Your task to perform on an android device: Play the last video I watched on Youtube Image 0: 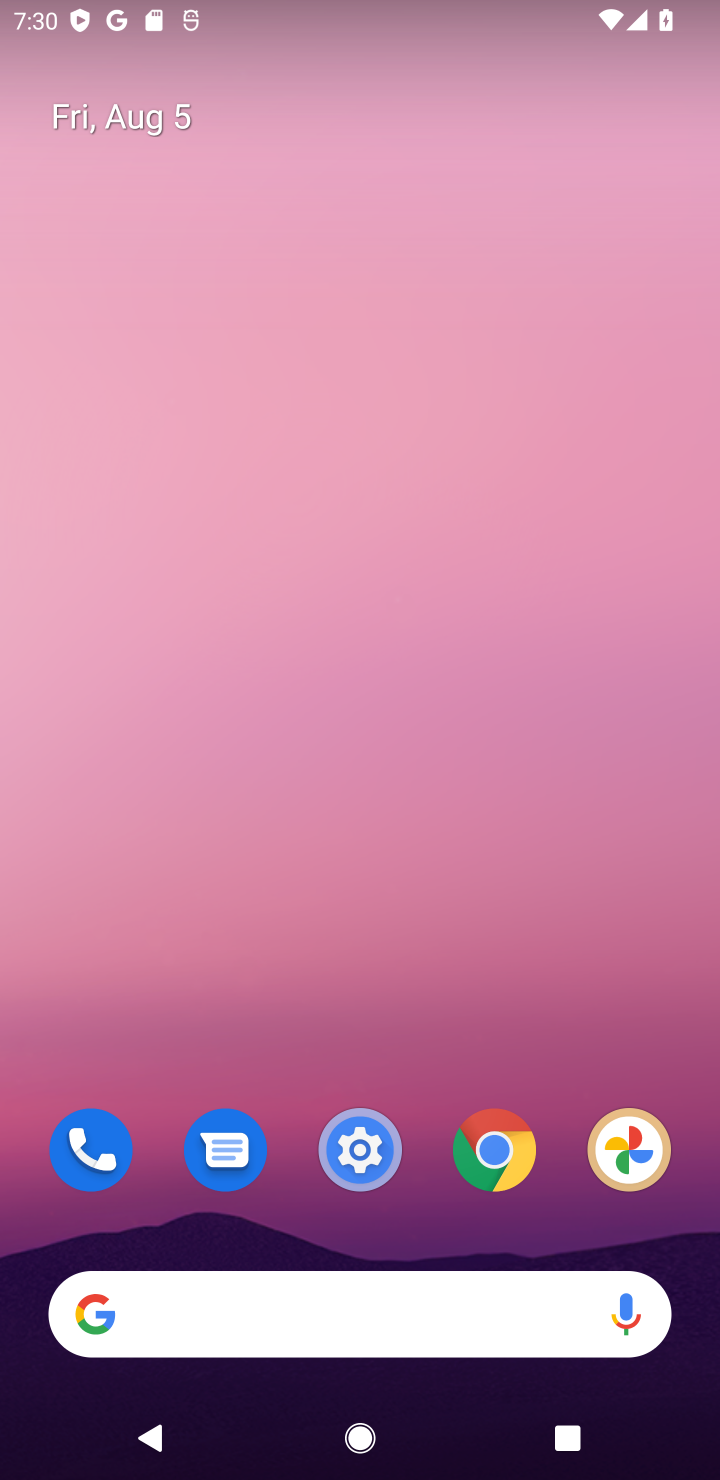
Step 0: press home button
Your task to perform on an android device: Play the last video I watched on Youtube Image 1: 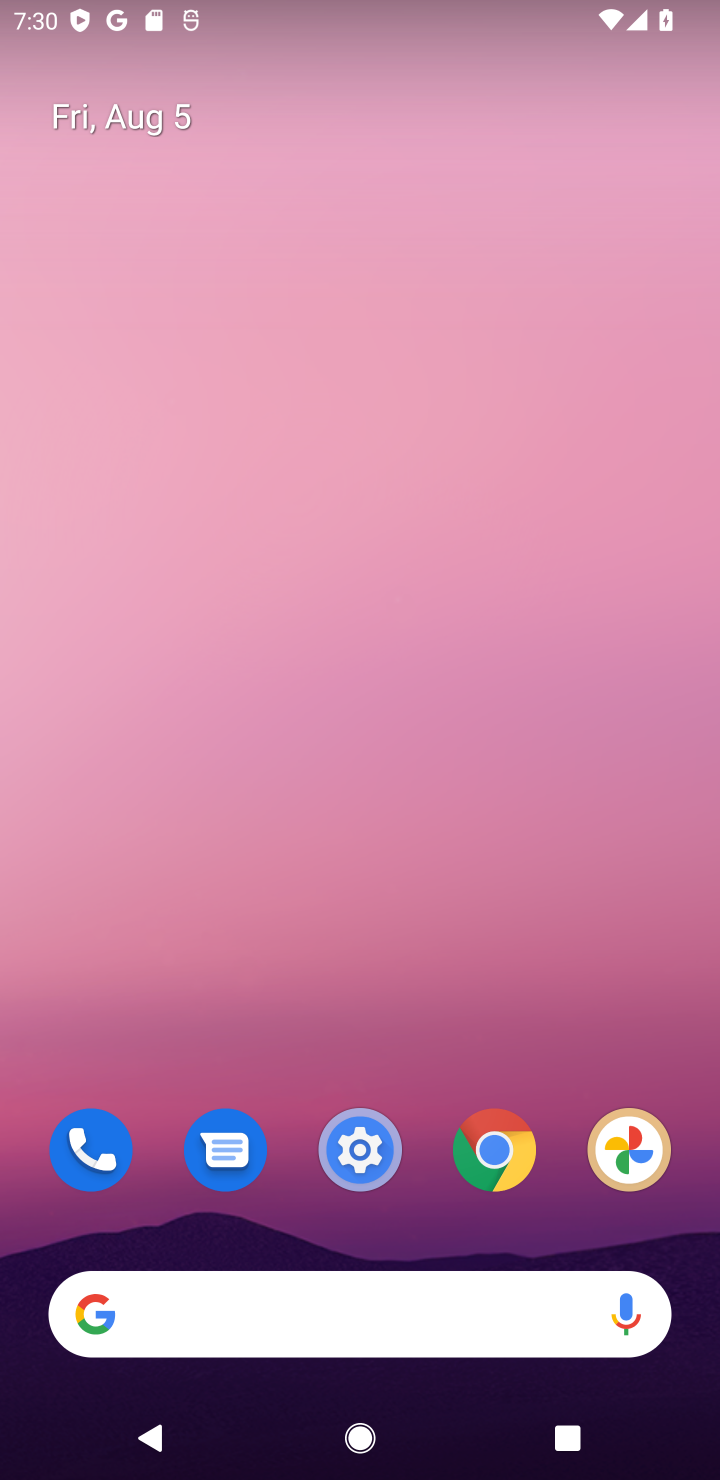
Step 1: drag from (429, 935) to (434, 483)
Your task to perform on an android device: Play the last video I watched on Youtube Image 2: 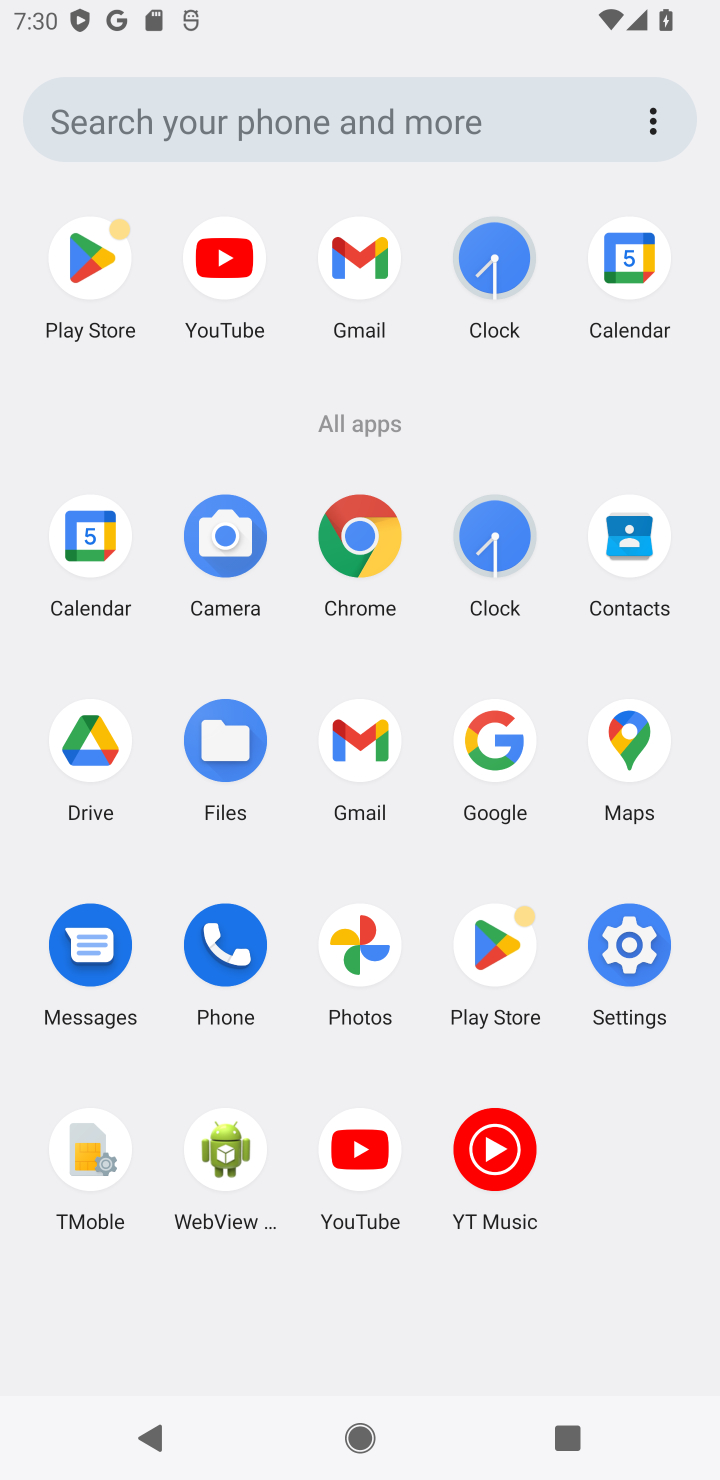
Step 2: click (361, 1134)
Your task to perform on an android device: Play the last video I watched on Youtube Image 3: 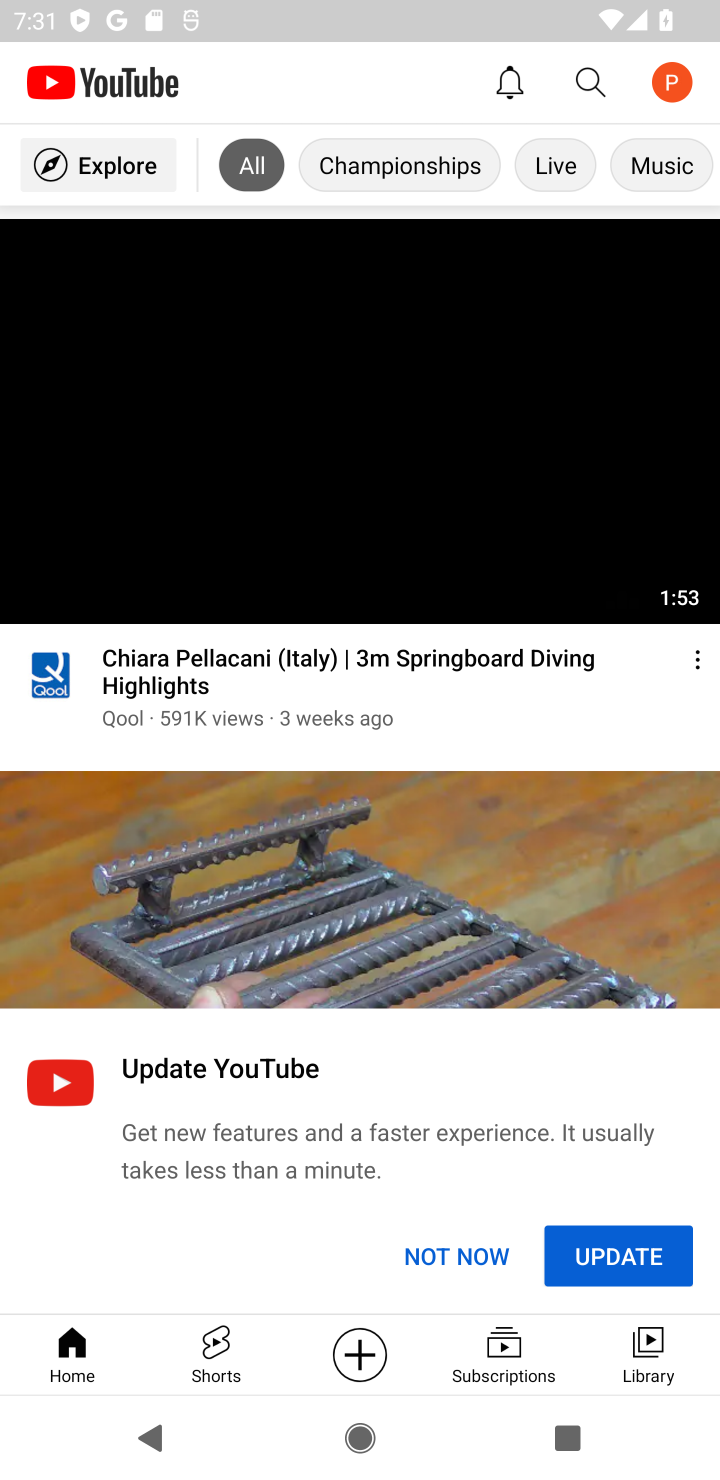
Step 3: click (648, 1362)
Your task to perform on an android device: Play the last video I watched on Youtube Image 4: 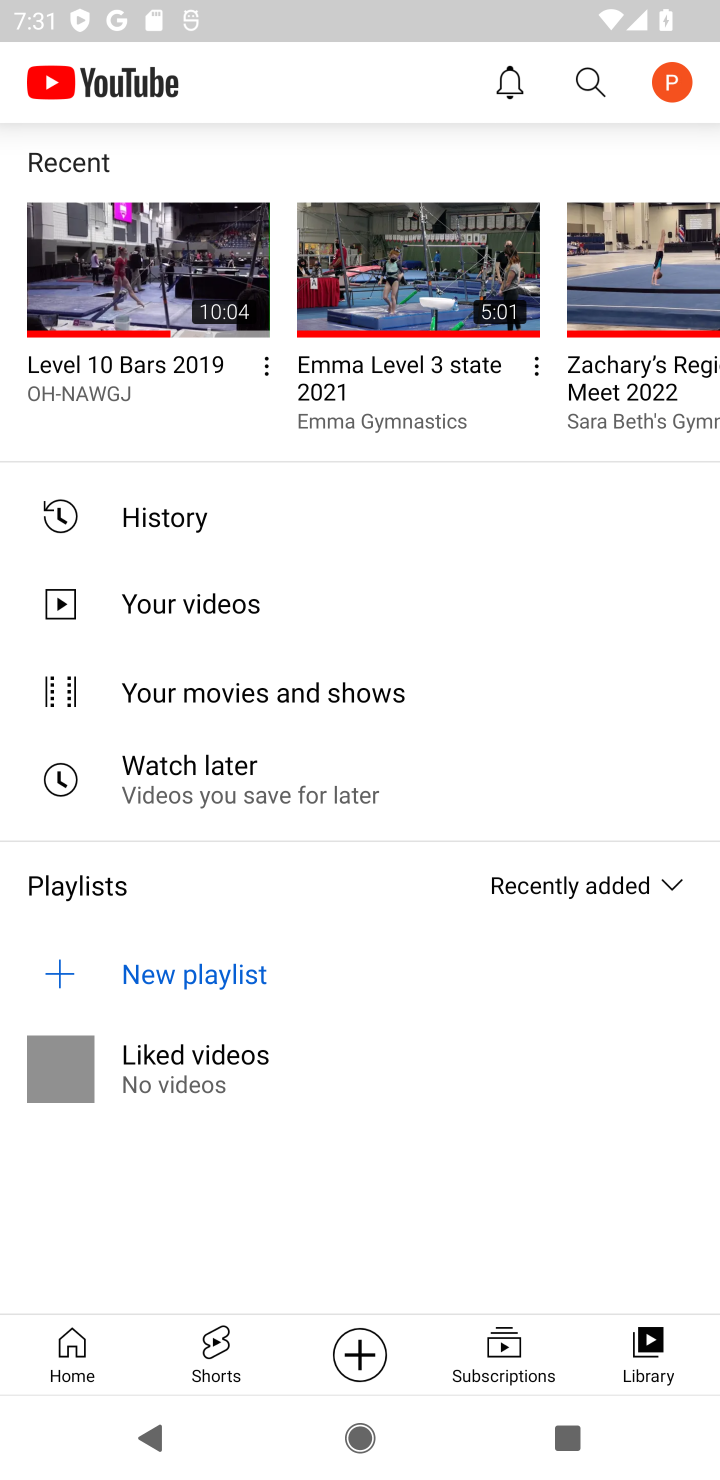
Step 4: click (150, 237)
Your task to perform on an android device: Play the last video I watched on Youtube Image 5: 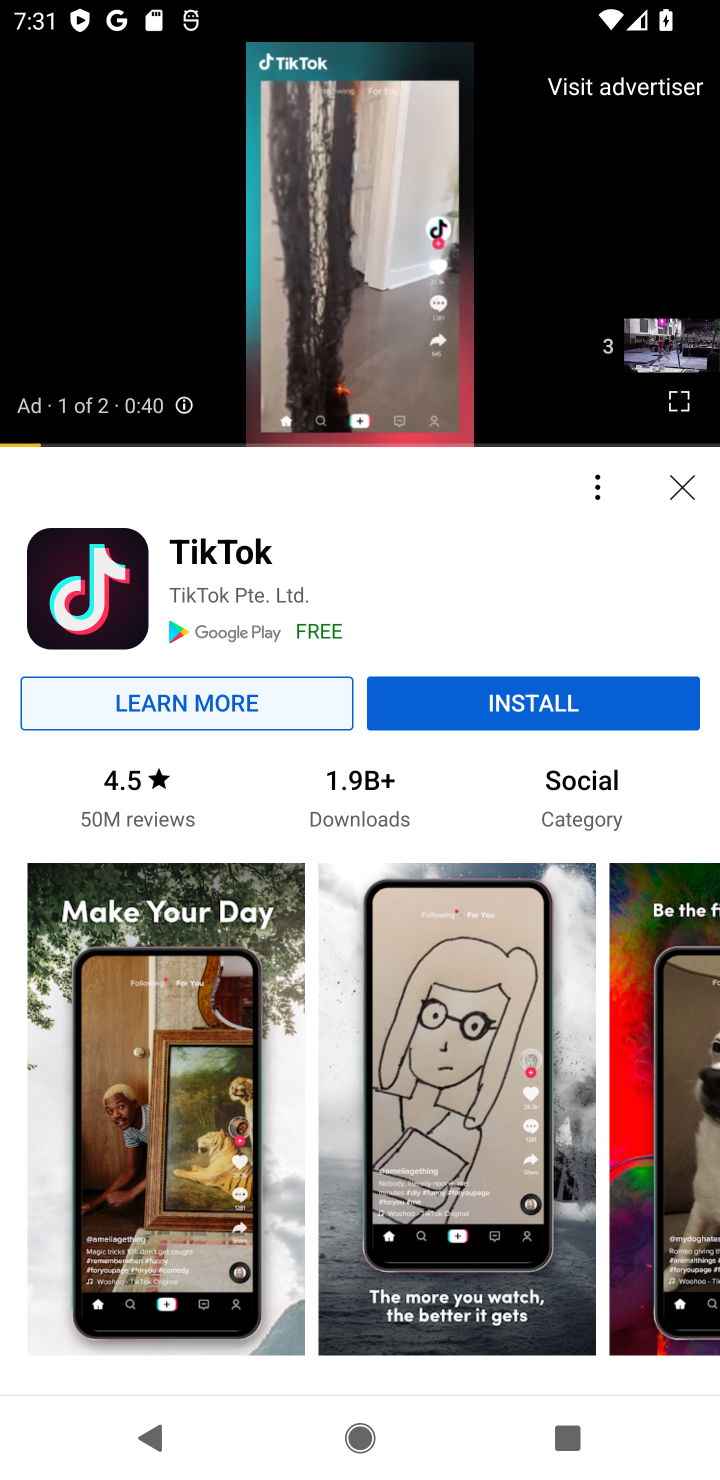
Step 5: task complete